Your task to perform on an android device: turn notification dots off Image 0: 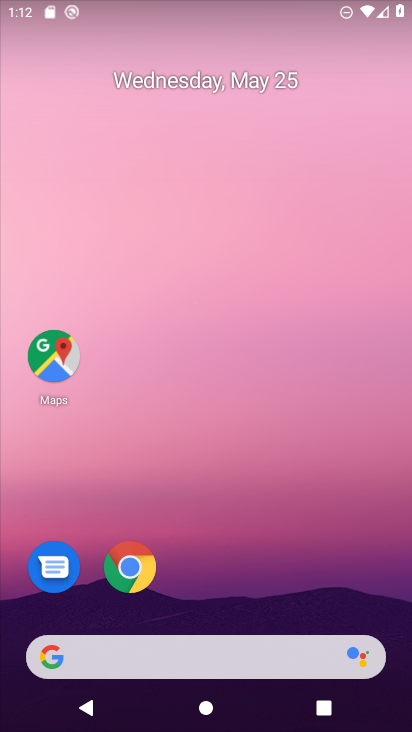
Step 0: drag from (219, 528) to (209, 130)
Your task to perform on an android device: turn notification dots off Image 1: 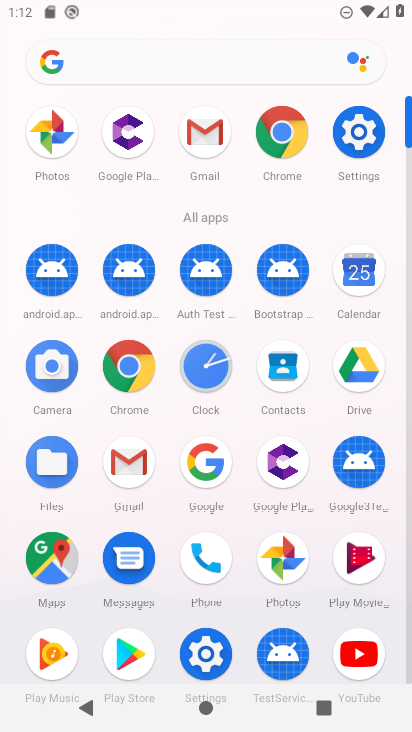
Step 1: click (197, 641)
Your task to perform on an android device: turn notification dots off Image 2: 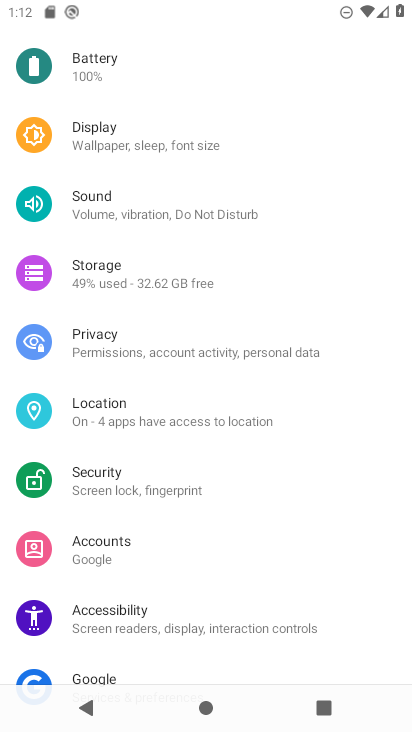
Step 2: drag from (133, 134) to (166, 581)
Your task to perform on an android device: turn notification dots off Image 3: 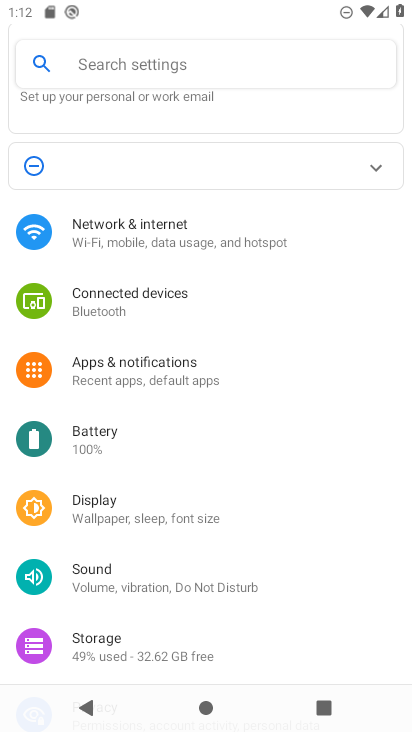
Step 3: click (163, 371)
Your task to perform on an android device: turn notification dots off Image 4: 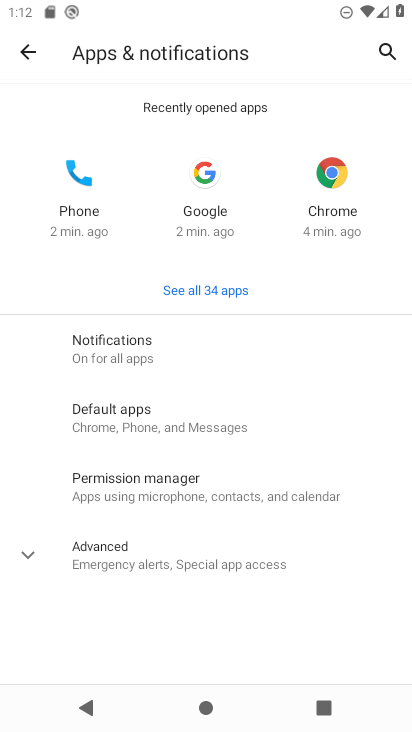
Step 4: click (151, 345)
Your task to perform on an android device: turn notification dots off Image 5: 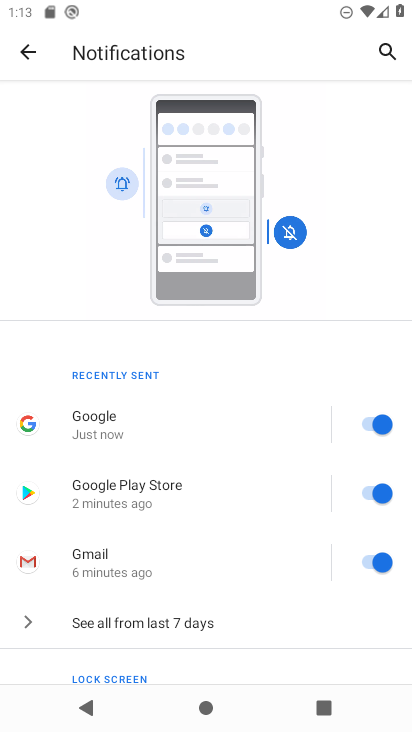
Step 5: drag from (149, 545) to (146, 104)
Your task to perform on an android device: turn notification dots off Image 6: 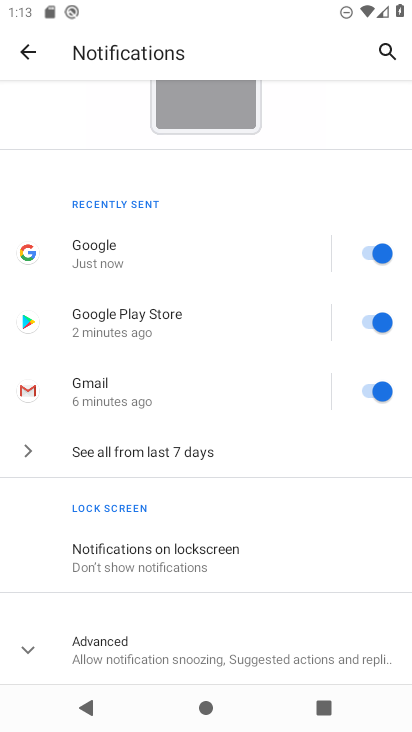
Step 6: drag from (184, 560) to (240, 324)
Your task to perform on an android device: turn notification dots off Image 7: 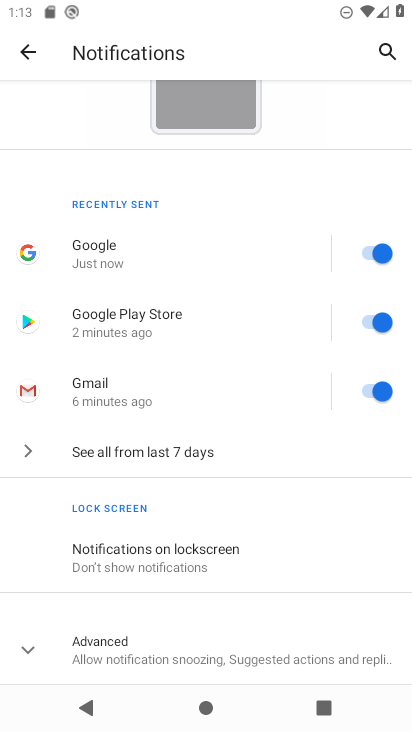
Step 7: click (117, 637)
Your task to perform on an android device: turn notification dots off Image 8: 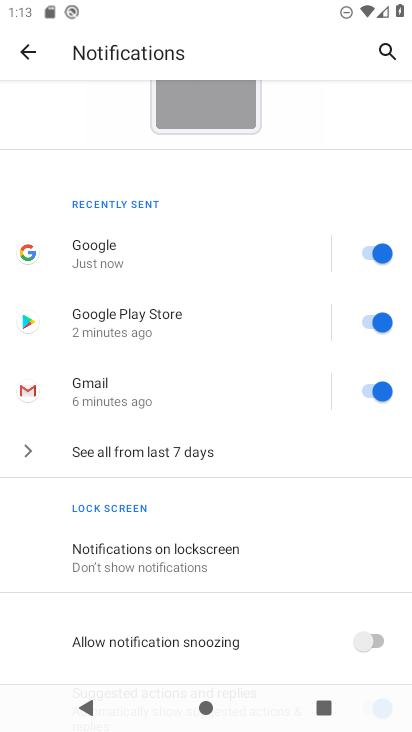
Step 8: drag from (149, 633) to (154, 194)
Your task to perform on an android device: turn notification dots off Image 9: 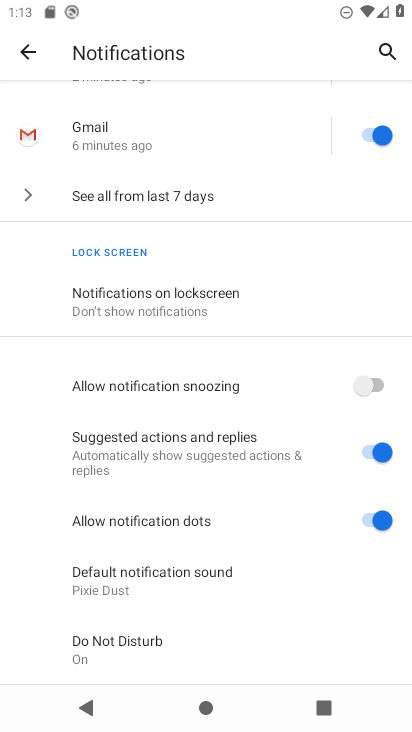
Step 9: click (375, 522)
Your task to perform on an android device: turn notification dots off Image 10: 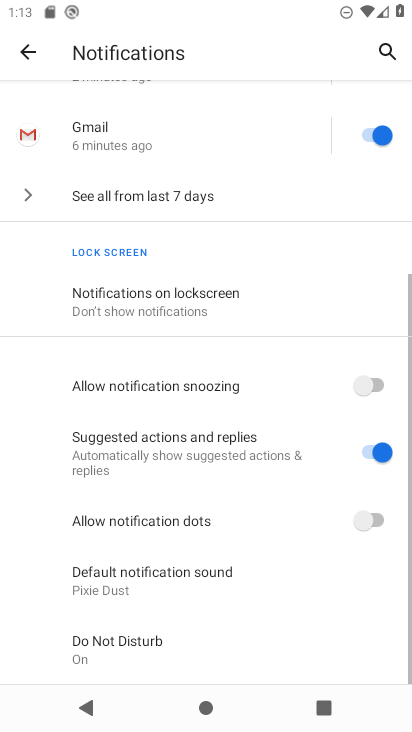
Step 10: task complete